Your task to perform on an android device: check the backup settings in the google photos Image 0: 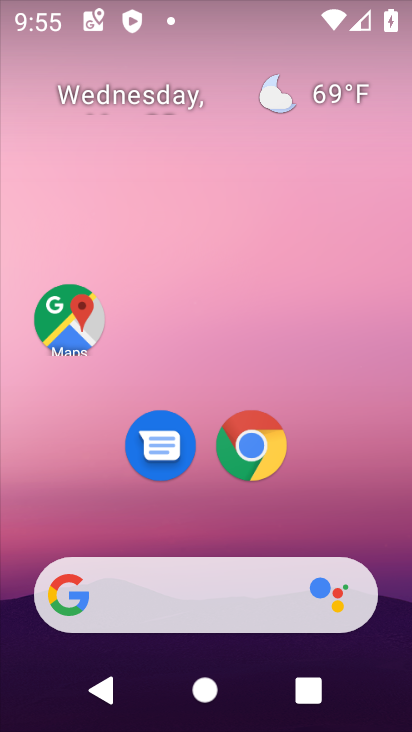
Step 0: press home button
Your task to perform on an android device: check the backup settings in the google photos Image 1: 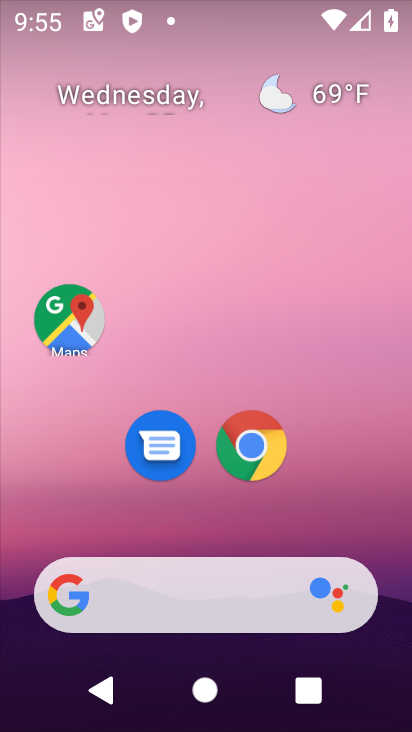
Step 1: drag from (397, 609) to (335, 194)
Your task to perform on an android device: check the backup settings in the google photos Image 2: 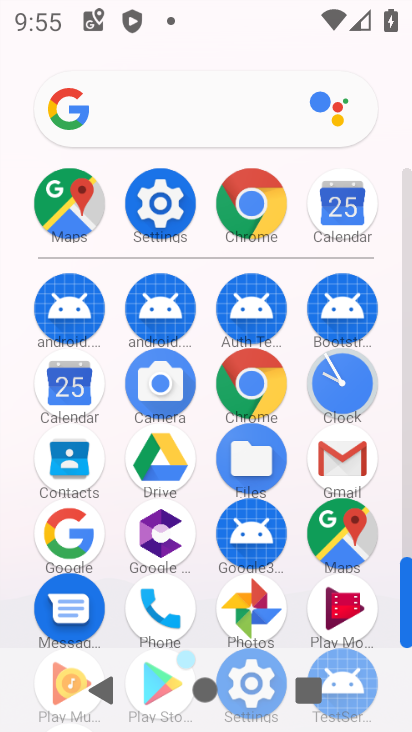
Step 2: click (404, 621)
Your task to perform on an android device: check the backup settings in the google photos Image 3: 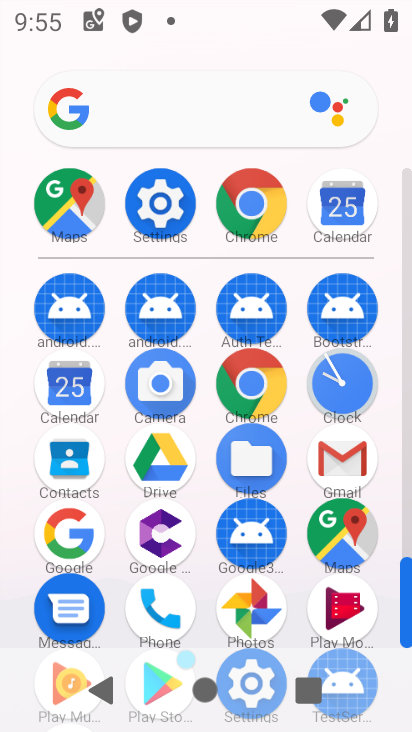
Step 3: click (400, 624)
Your task to perform on an android device: check the backup settings in the google photos Image 4: 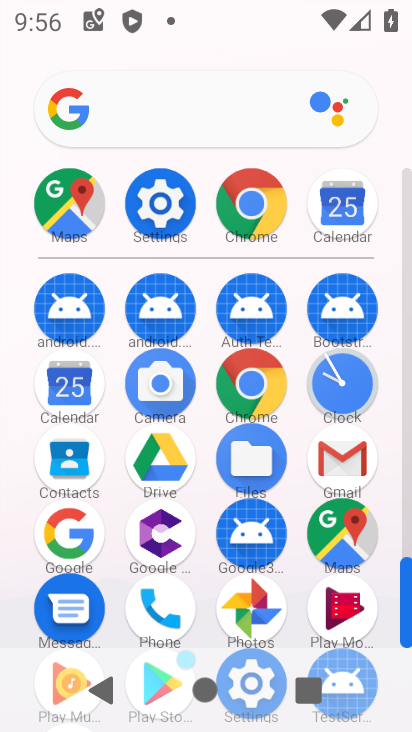
Step 4: click (399, 629)
Your task to perform on an android device: check the backup settings in the google photos Image 5: 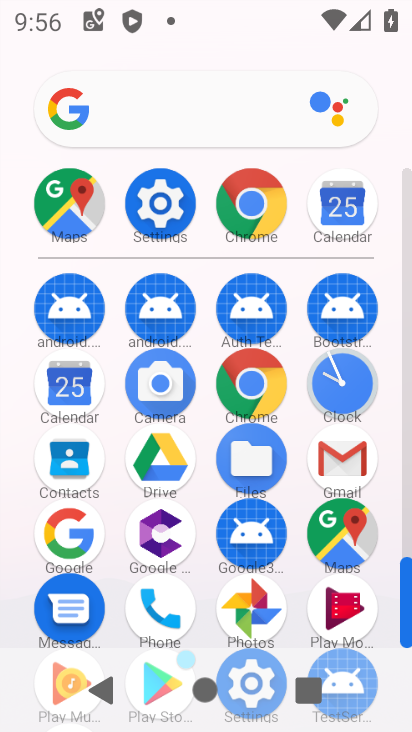
Step 5: click (399, 629)
Your task to perform on an android device: check the backup settings in the google photos Image 6: 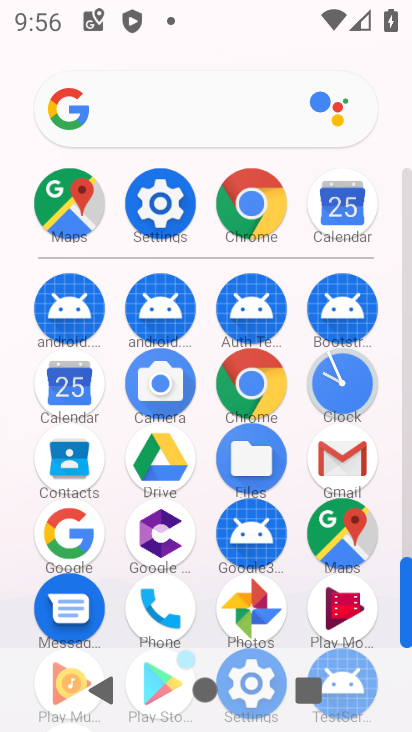
Step 6: click (402, 629)
Your task to perform on an android device: check the backup settings in the google photos Image 7: 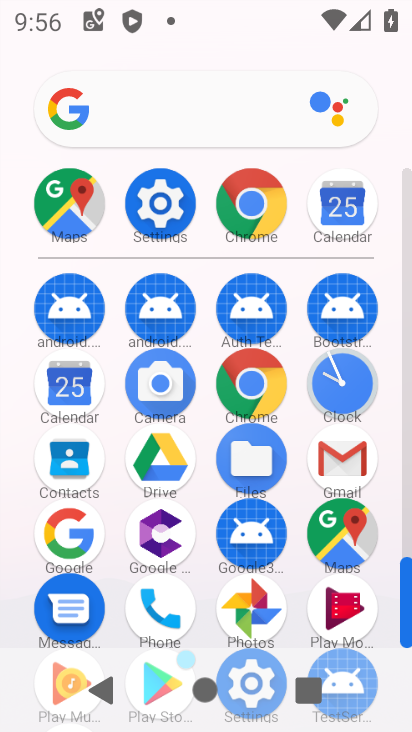
Step 7: click (402, 628)
Your task to perform on an android device: check the backup settings in the google photos Image 8: 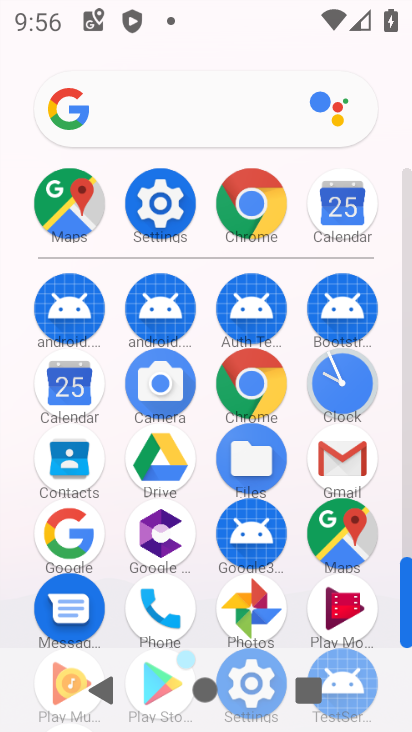
Step 8: click (399, 628)
Your task to perform on an android device: check the backup settings in the google photos Image 9: 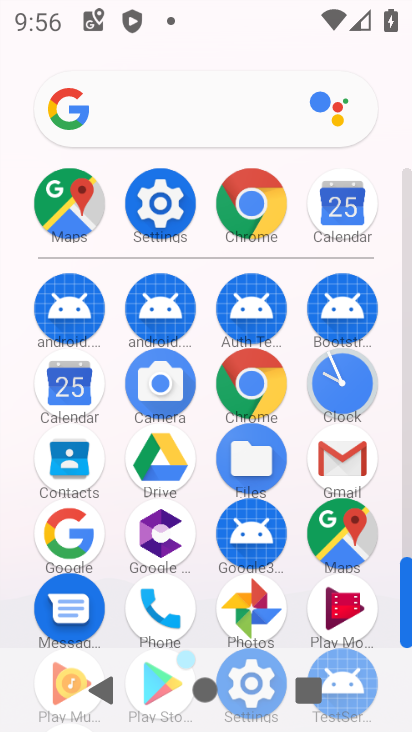
Step 9: click (399, 628)
Your task to perform on an android device: check the backup settings in the google photos Image 10: 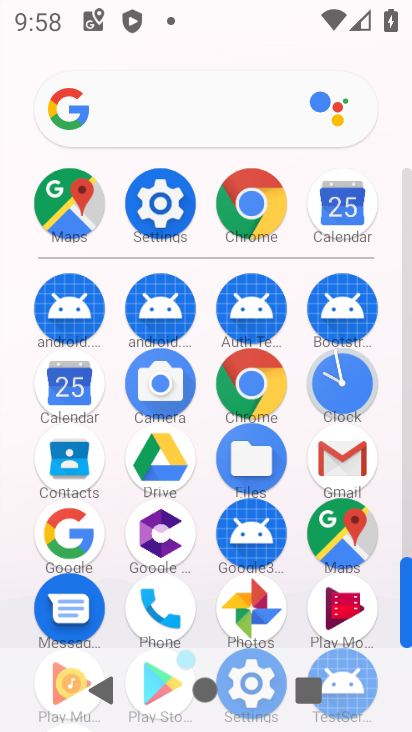
Step 10: drag from (411, 592) to (411, 725)
Your task to perform on an android device: check the backup settings in the google photos Image 11: 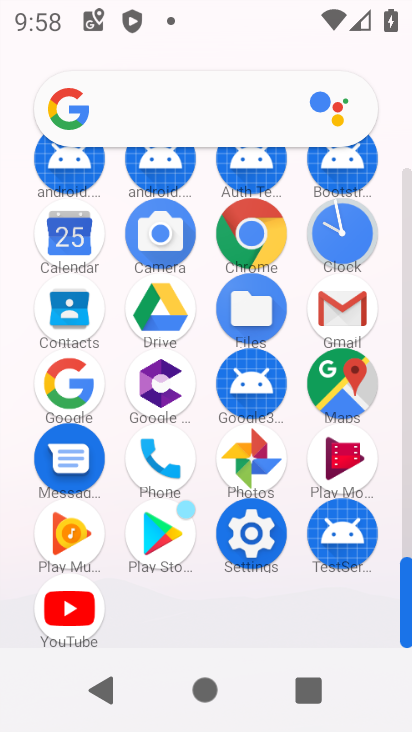
Step 11: click (253, 455)
Your task to perform on an android device: check the backup settings in the google photos Image 12: 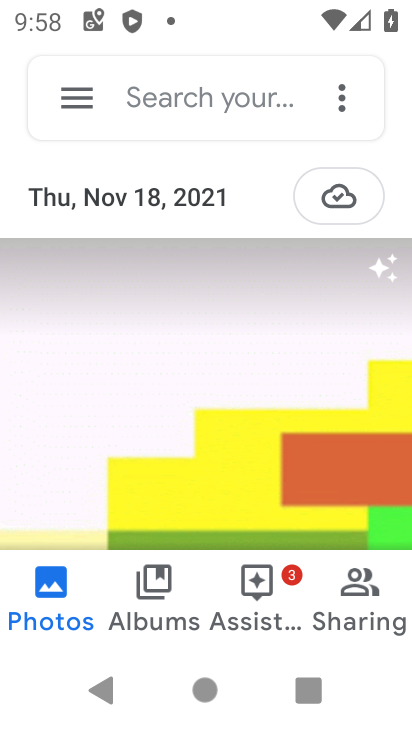
Step 12: click (65, 98)
Your task to perform on an android device: check the backup settings in the google photos Image 13: 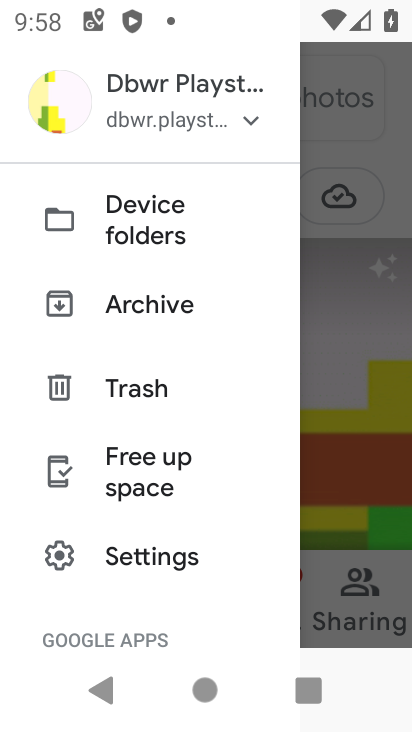
Step 13: drag from (117, 604) to (152, 654)
Your task to perform on an android device: check the backup settings in the google photos Image 14: 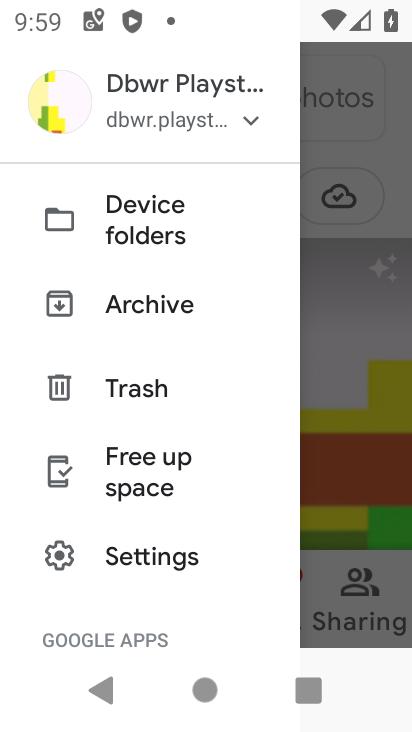
Step 14: click (64, 552)
Your task to perform on an android device: check the backup settings in the google photos Image 15: 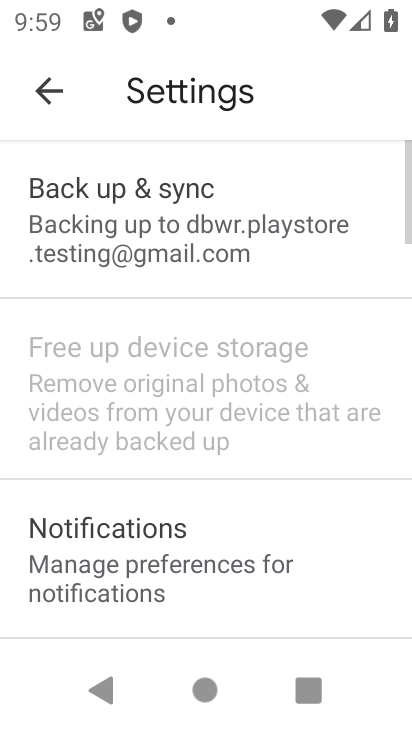
Step 15: click (87, 224)
Your task to perform on an android device: check the backup settings in the google photos Image 16: 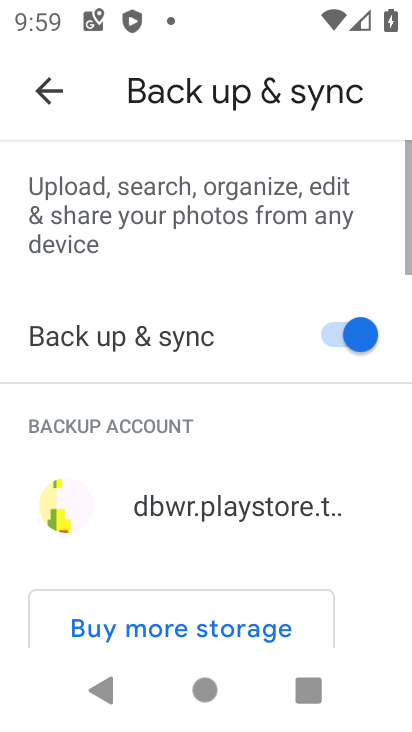
Step 16: task complete